Your task to perform on an android device: change the clock style Image 0: 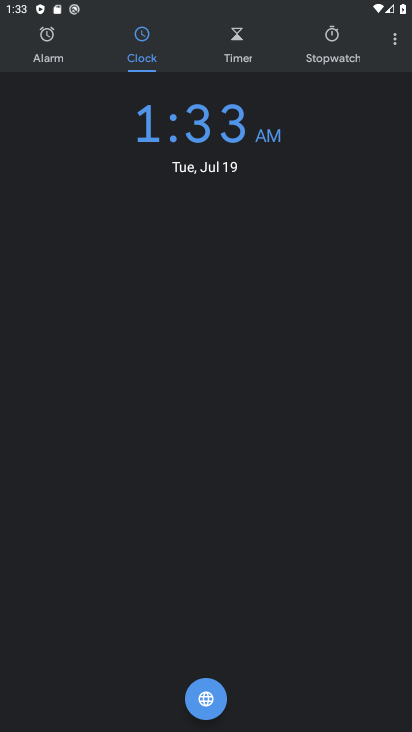
Step 0: press home button
Your task to perform on an android device: change the clock style Image 1: 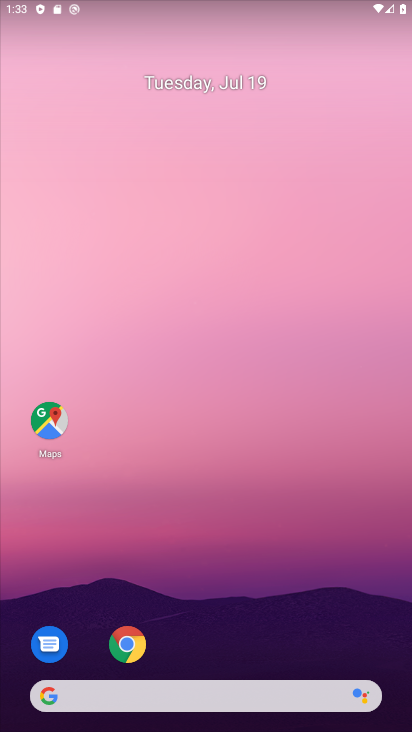
Step 1: drag from (186, 661) to (160, 146)
Your task to perform on an android device: change the clock style Image 2: 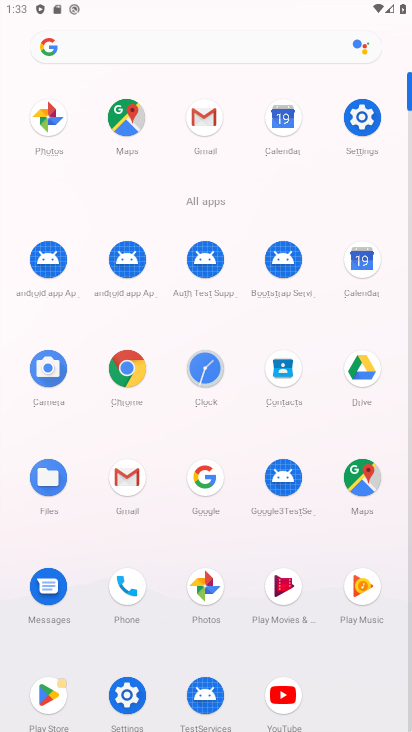
Step 2: click (205, 370)
Your task to perform on an android device: change the clock style Image 3: 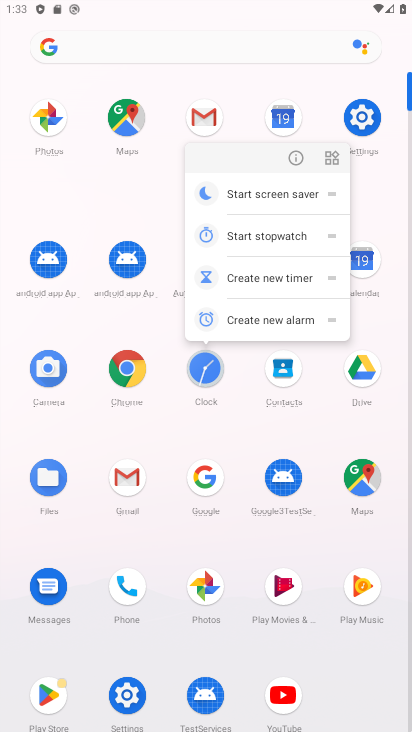
Step 3: click (206, 371)
Your task to perform on an android device: change the clock style Image 4: 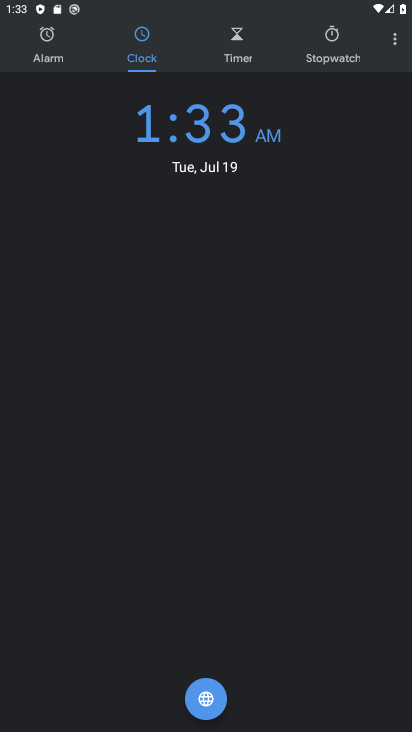
Step 4: click (388, 39)
Your task to perform on an android device: change the clock style Image 5: 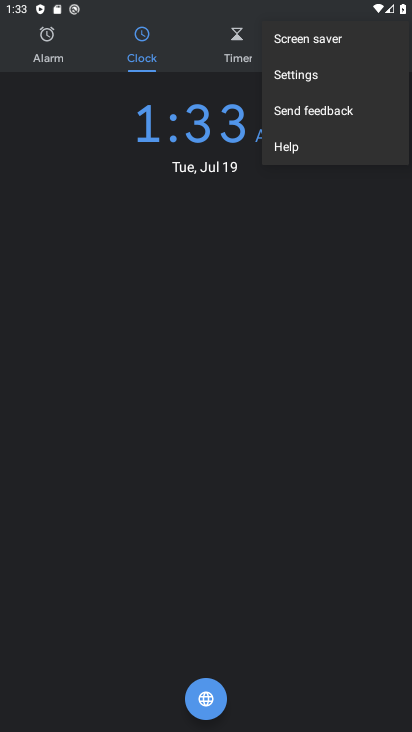
Step 5: click (323, 76)
Your task to perform on an android device: change the clock style Image 6: 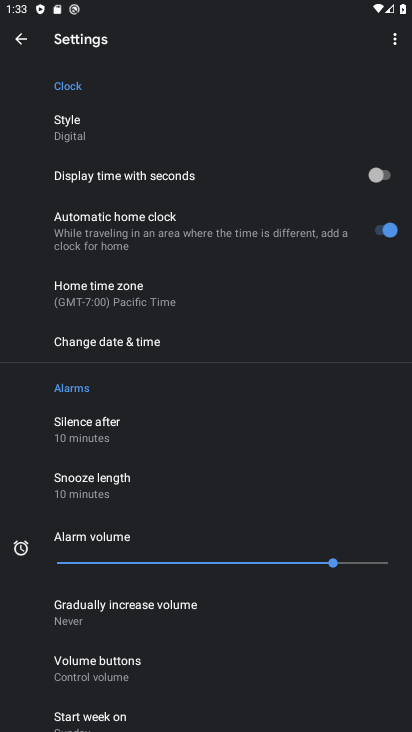
Step 6: click (72, 116)
Your task to perform on an android device: change the clock style Image 7: 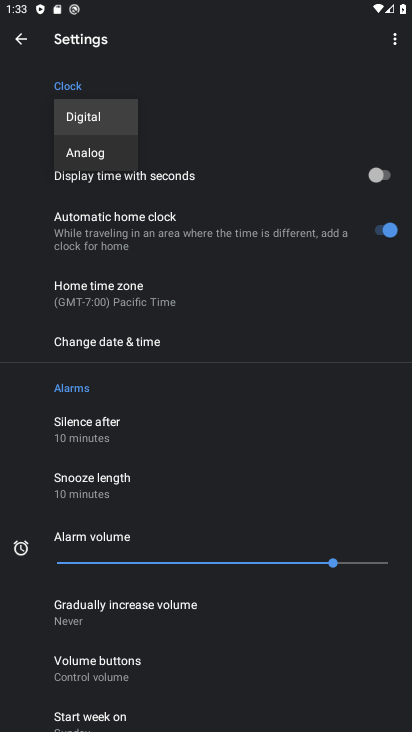
Step 7: click (102, 151)
Your task to perform on an android device: change the clock style Image 8: 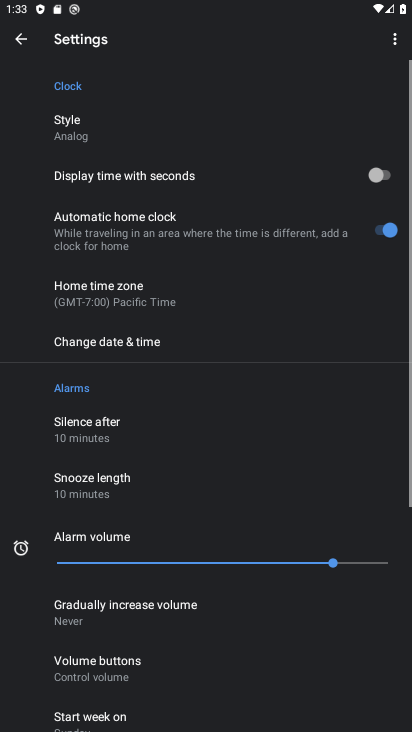
Step 8: task complete